Your task to perform on an android device: Turn on the flashlight Image 0: 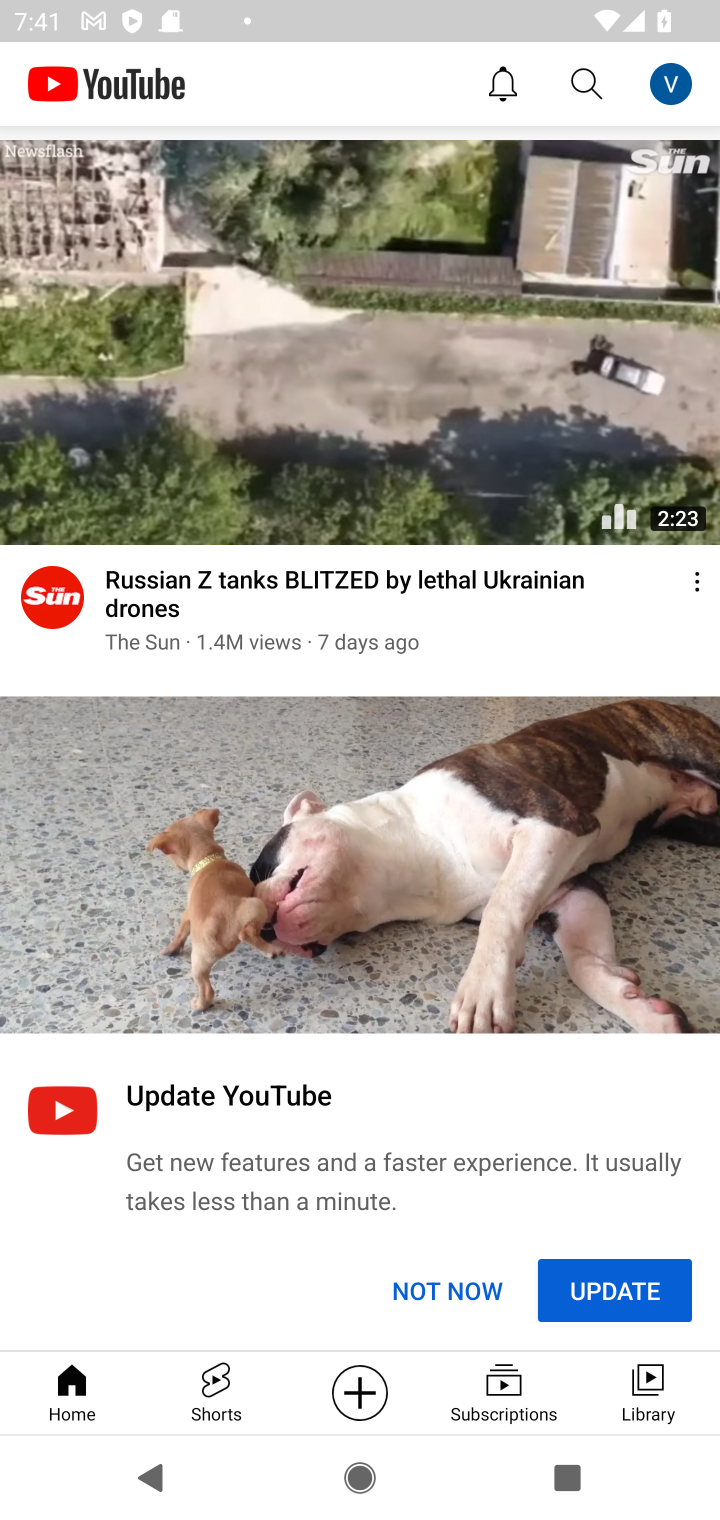
Step 0: press home button
Your task to perform on an android device: Turn on the flashlight Image 1: 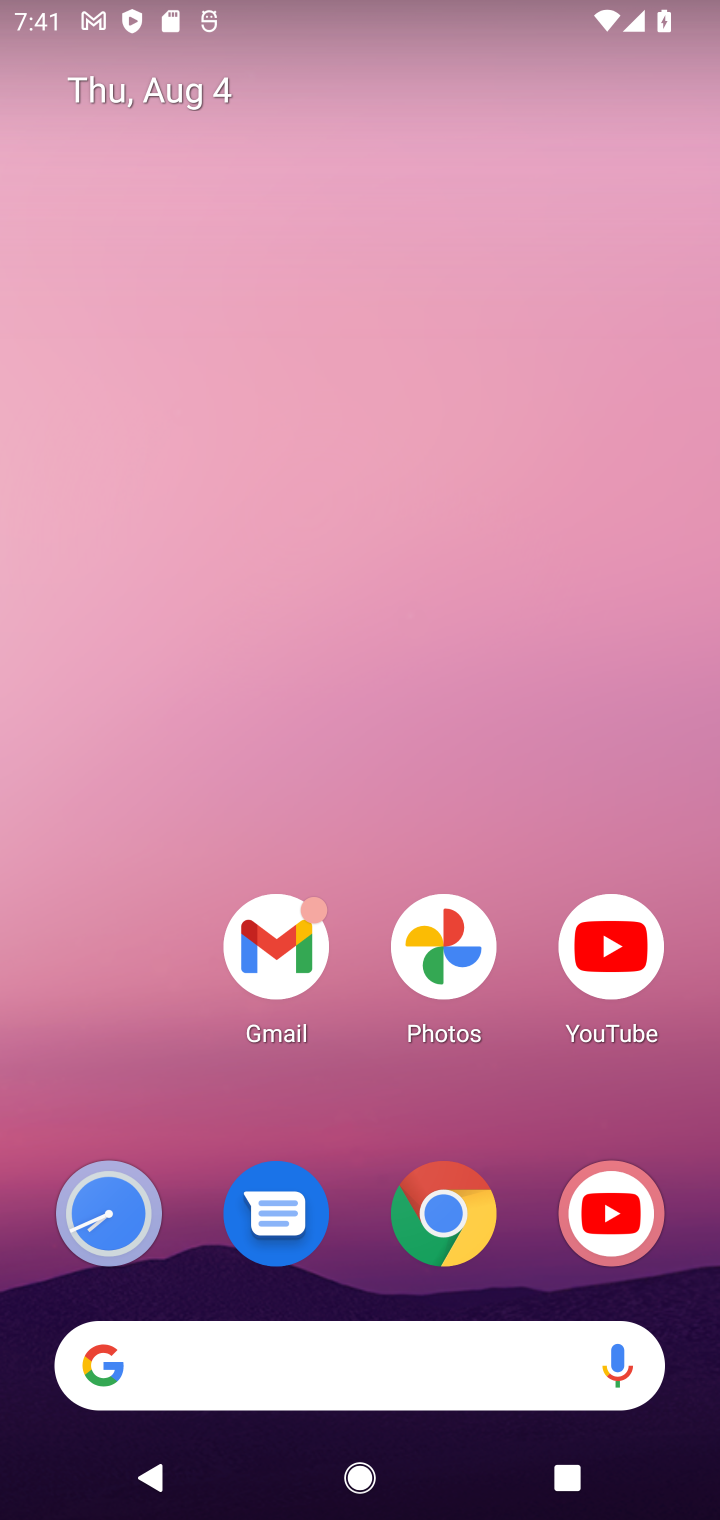
Step 1: drag from (370, 1236) to (186, 49)
Your task to perform on an android device: Turn on the flashlight Image 2: 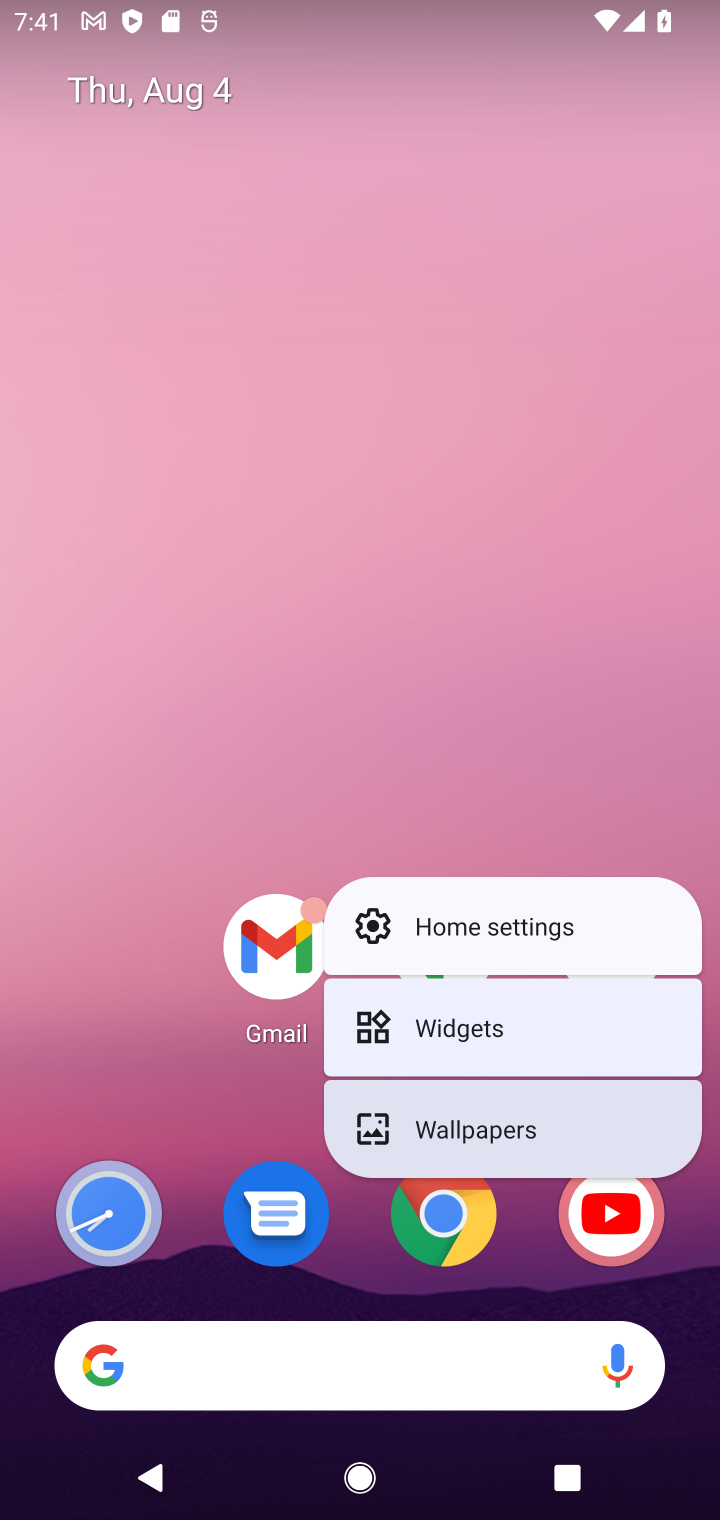
Step 2: click (379, 477)
Your task to perform on an android device: Turn on the flashlight Image 3: 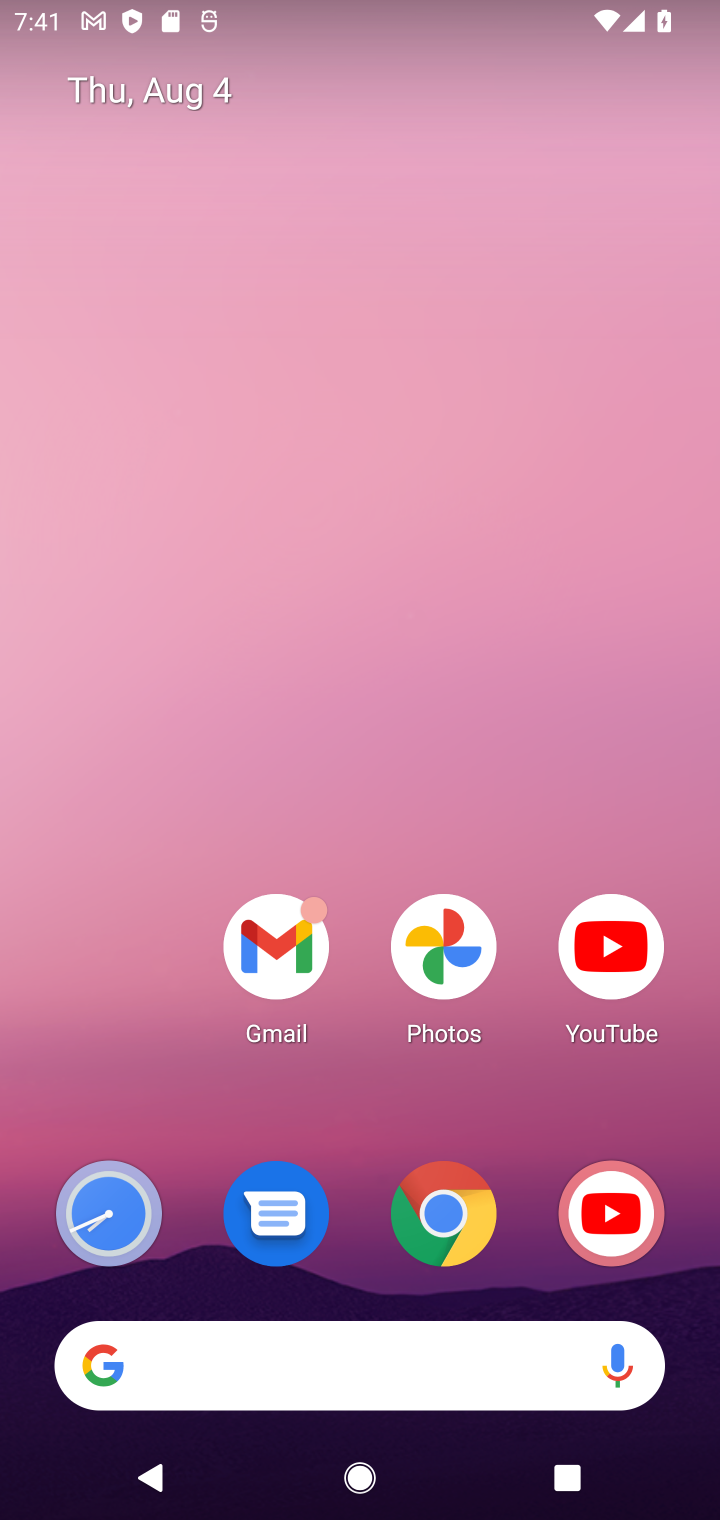
Step 3: drag from (556, 1218) to (417, 93)
Your task to perform on an android device: Turn on the flashlight Image 4: 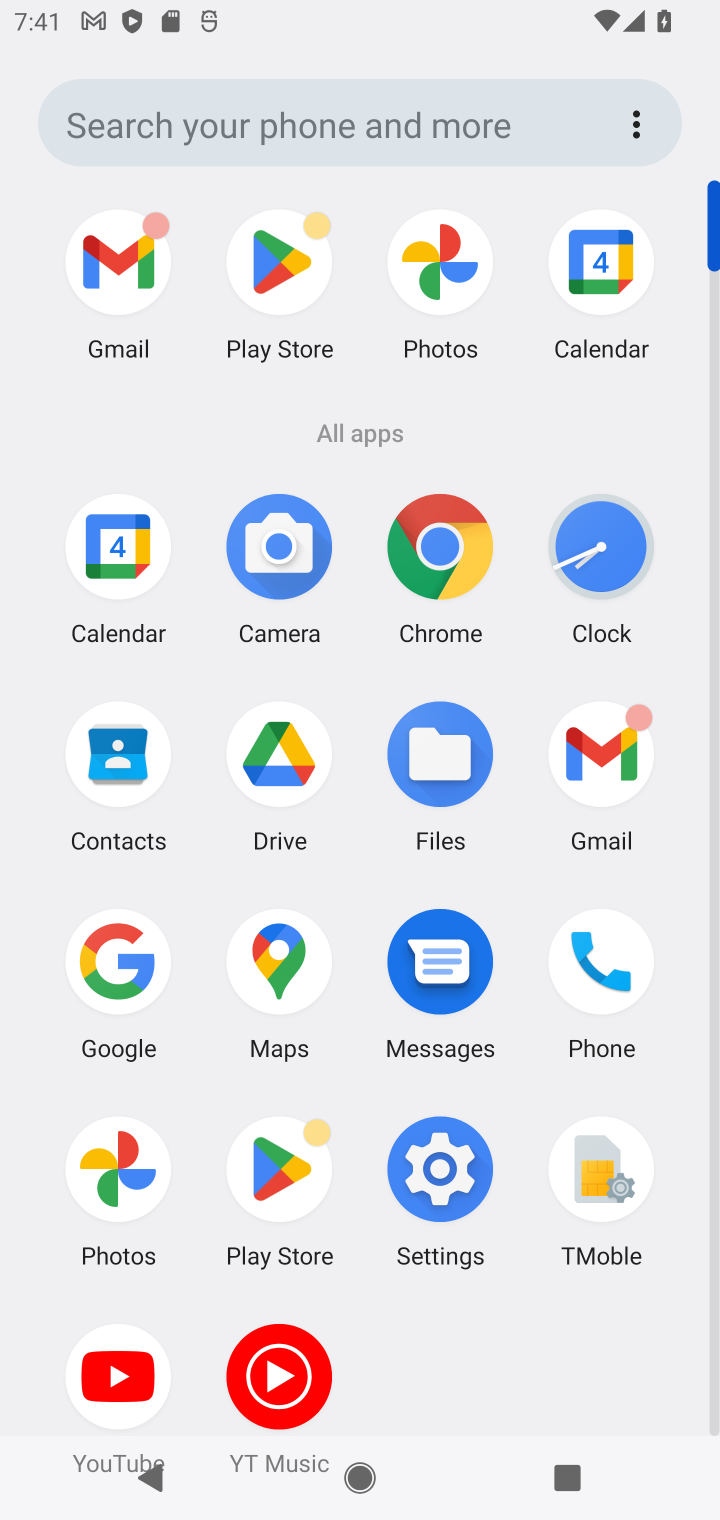
Step 4: click (644, 595)
Your task to perform on an android device: Turn on the flashlight Image 5: 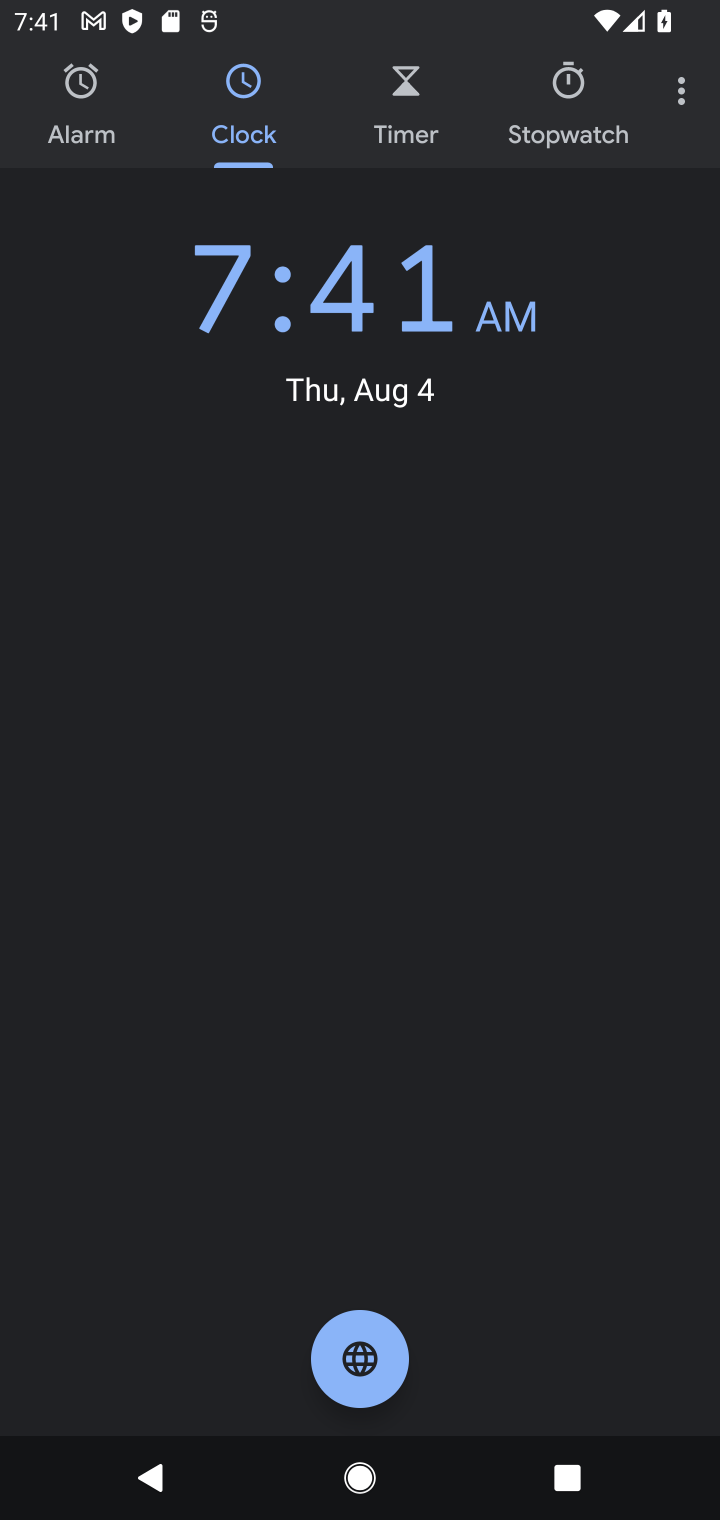
Step 5: task complete